Your task to perform on an android device: Open ESPN.com Image 0: 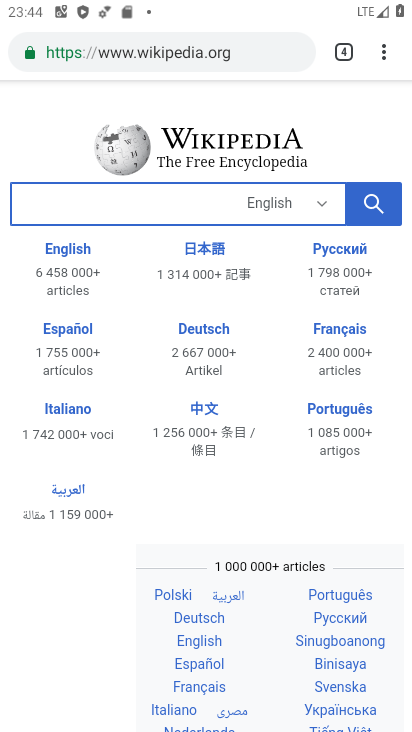
Step 0: press home button
Your task to perform on an android device: Open ESPN.com Image 1: 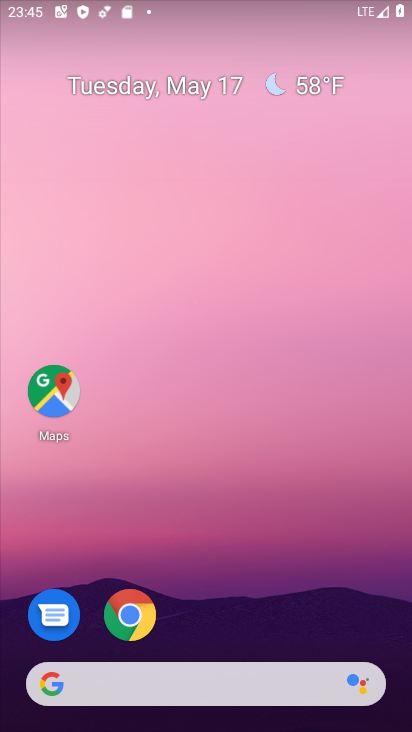
Step 1: click (137, 601)
Your task to perform on an android device: Open ESPN.com Image 2: 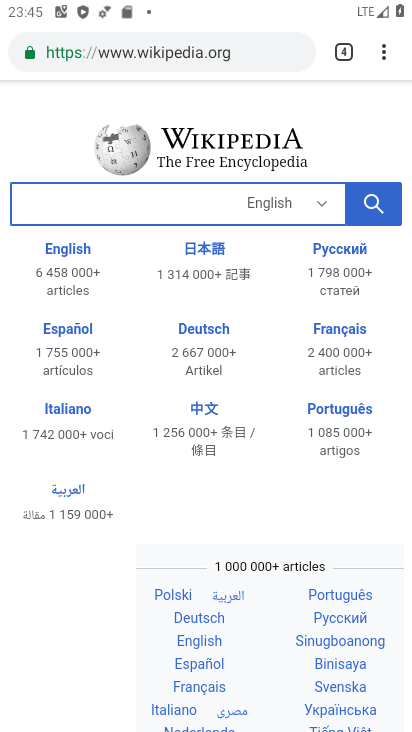
Step 2: click (342, 54)
Your task to perform on an android device: Open ESPN.com Image 3: 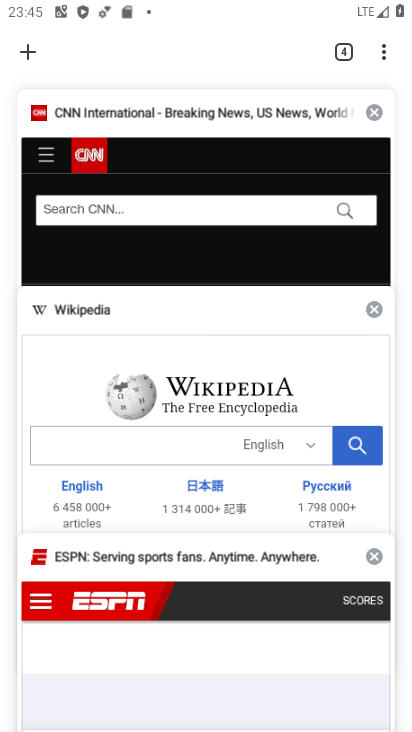
Step 3: click (145, 603)
Your task to perform on an android device: Open ESPN.com Image 4: 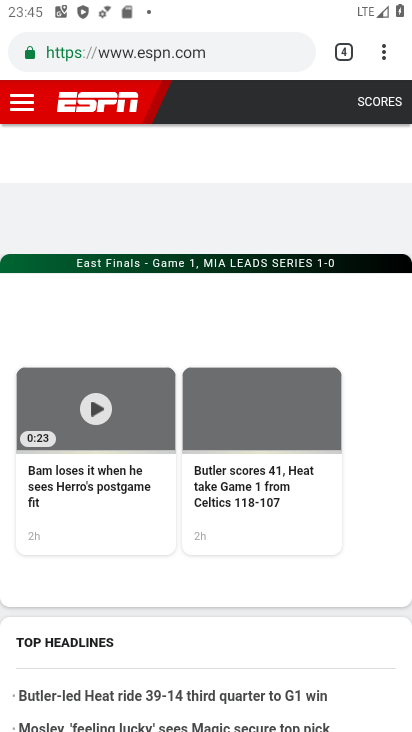
Step 4: task complete